Your task to perform on an android device: Open the calendar app, open the side menu, and click the "Day" option Image 0: 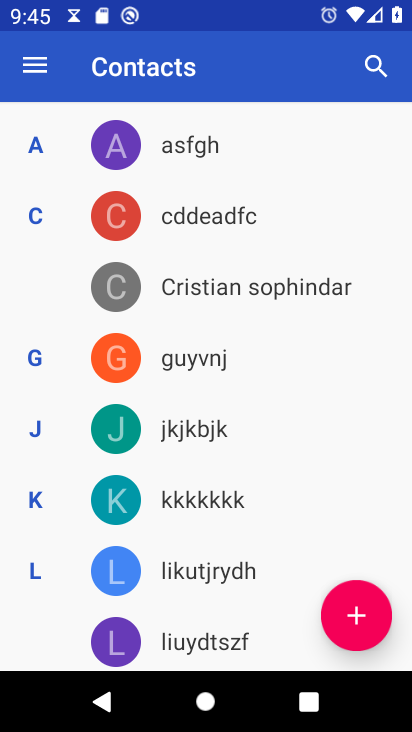
Step 0: press home button
Your task to perform on an android device: Open the calendar app, open the side menu, and click the "Day" option Image 1: 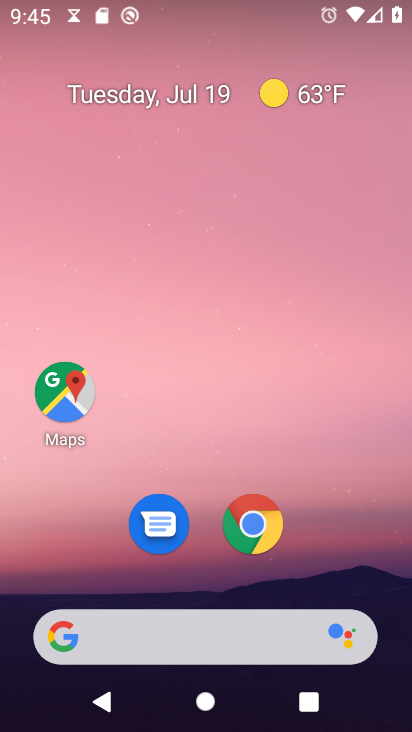
Step 1: drag from (190, 644) to (266, 90)
Your task to perform on an android device: Open the calendar app, open the side menu, and click the "Day" option Image 2: 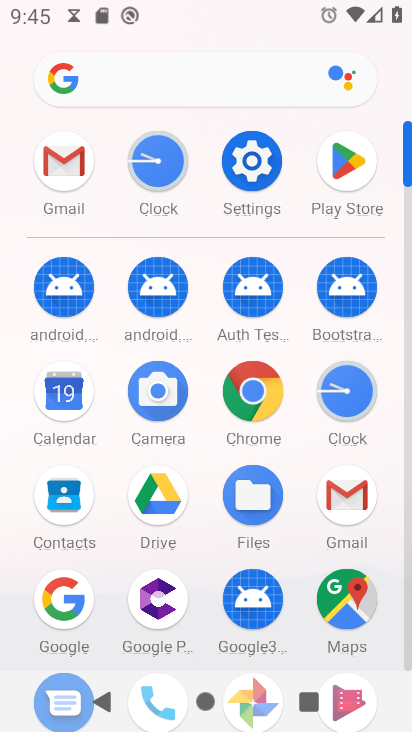
Step 2: click (62, 400)
Your task to perform on an android device: Open the calendar app, open the side menu, and click the "Day" option Image 3: 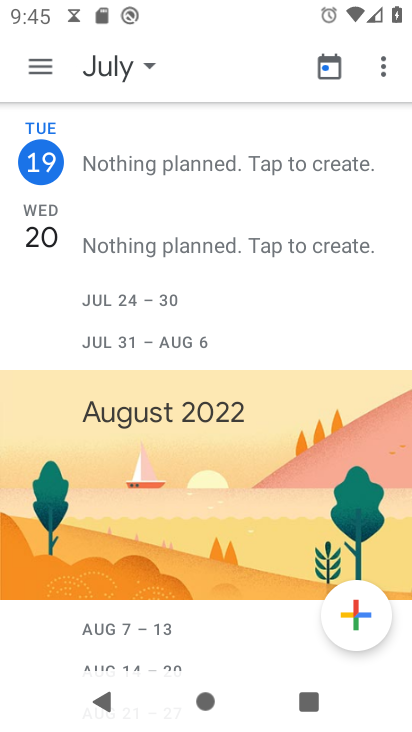
Step 3: click (40, 66)
Your task to perform on an android device: Open the calendar app, open the side menu, and click the "Day" option Image 4: 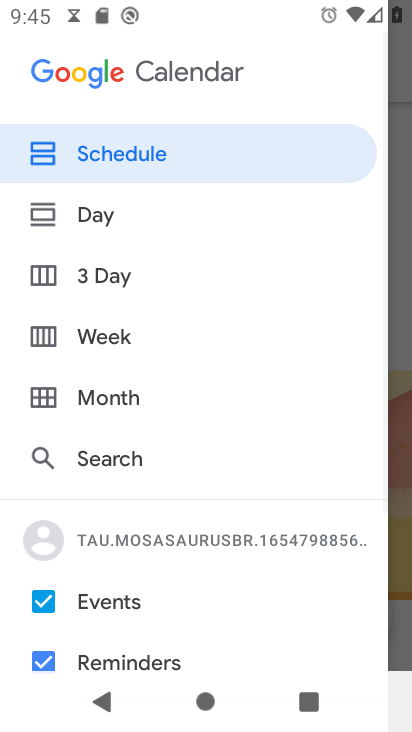
Step 4: click (103, 214)
Your task to perform on an android device: Open the calendar app, open the side menu, and click the "Day" option Image 5: 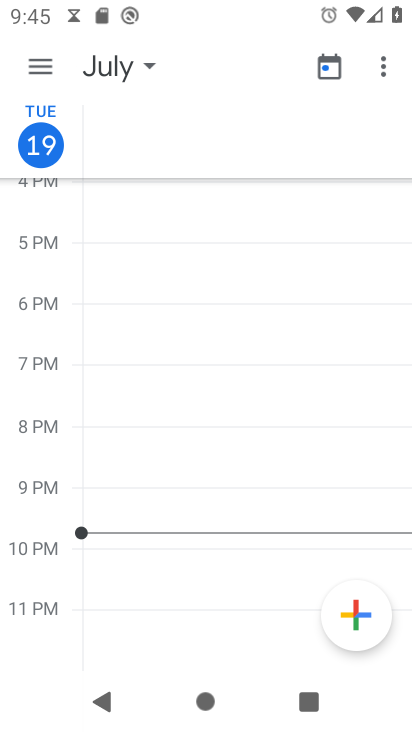
Step 5: task complete